Your task to perform on an android device: Open Google Image 0: 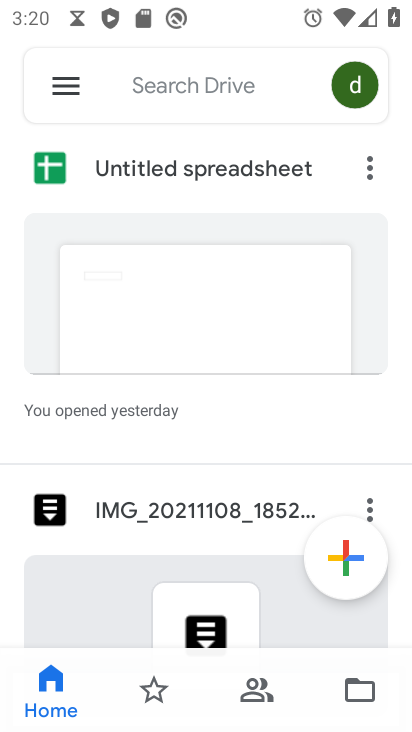
Step 0: press home button
Your task to perform on an android device: Open Google Image 1: 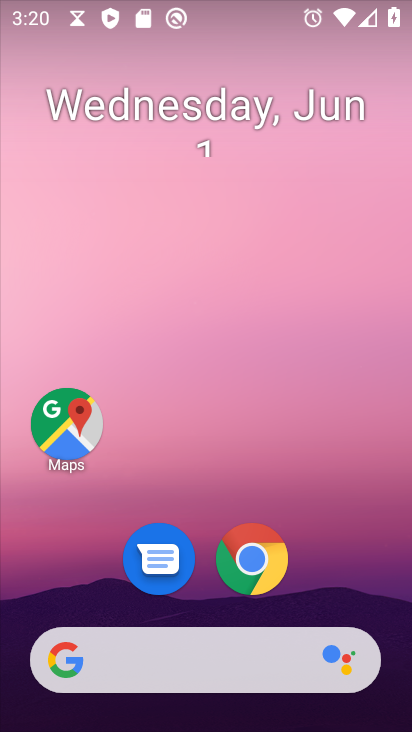
Step 1: drag from (341, 583) to (293, 40)
Your task to perform on an android device: Open Google Image 2: 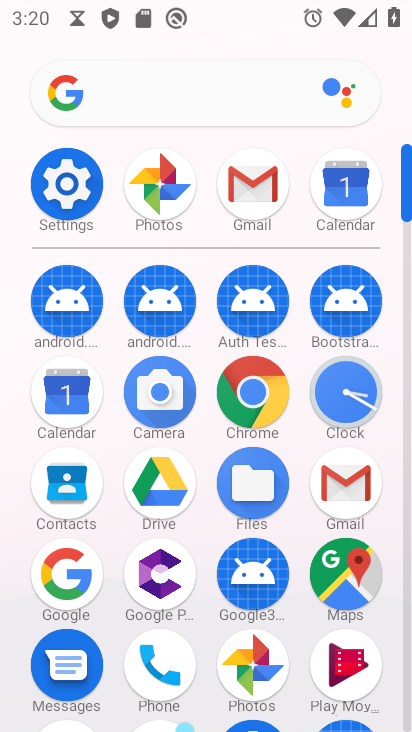
Step 2: click (59, 574)
Your task to perform on an android device: Open Google Image 3: 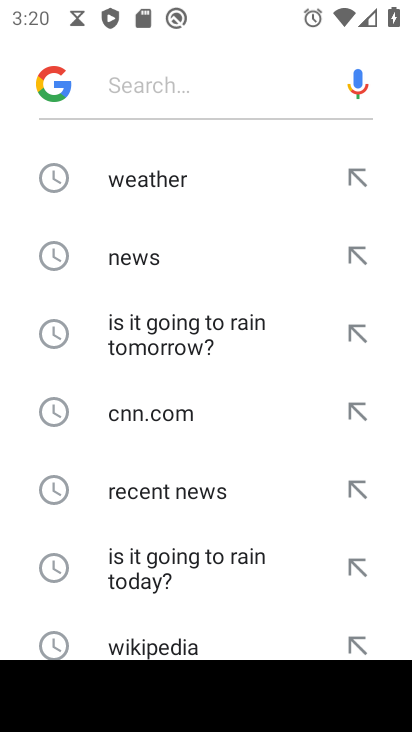
Step 3: task complete